Your task to perform on an android device: open a bookmark in the chrome app Image 0: 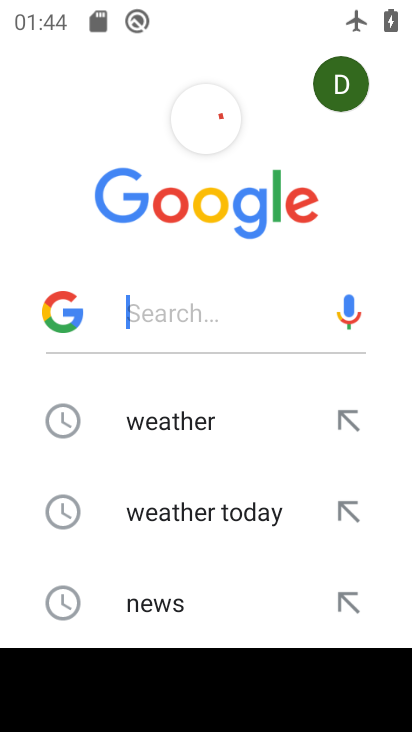
Step 0: press home button
Your task to perform on an android device: open a bookmark in the chrome app Image 1: 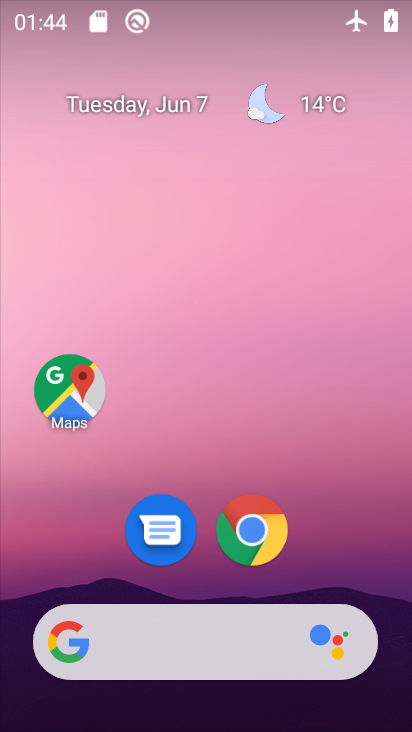
Step 1: click (276, 511)
Your task to perform on an android device: open a bookmark in the chrome app Image 2: 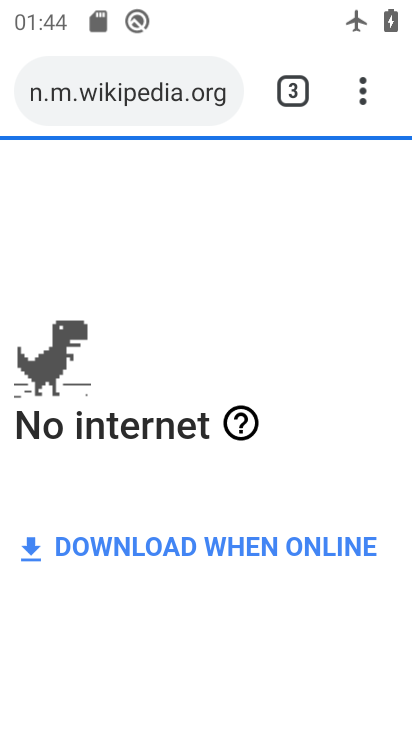
Step 2: click (362, 89)
Your task to perform on an android device: open a bookmark in the chrome app Image 3: 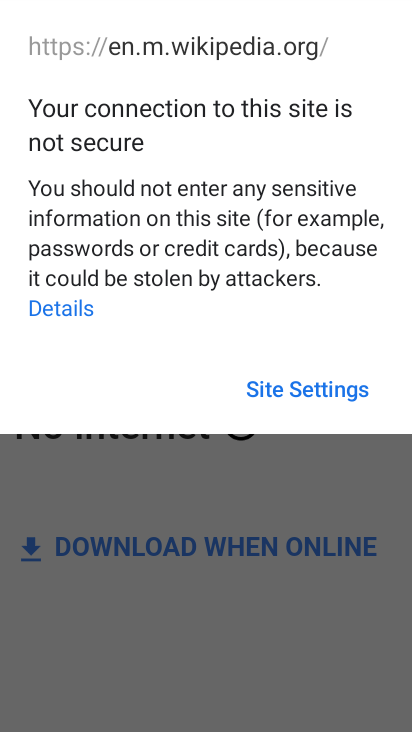
Step 3: press back button
Your task to perform on an android device: open a bookmark in the chrome app Image 4: 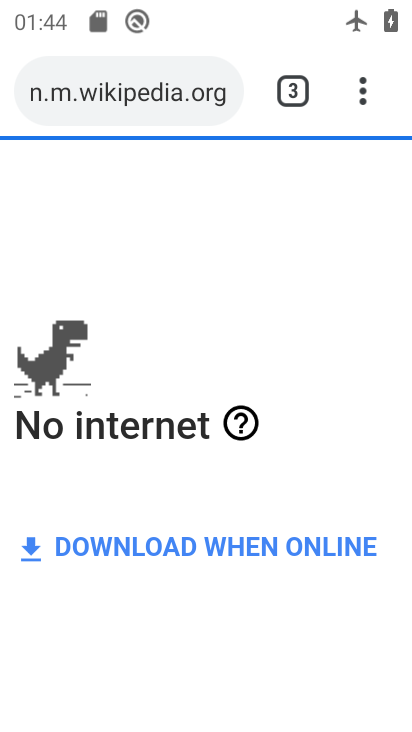
Step 4: click (358, 74)
Your task to perform on an android device: open a bookmark in the chrome app Image 5: 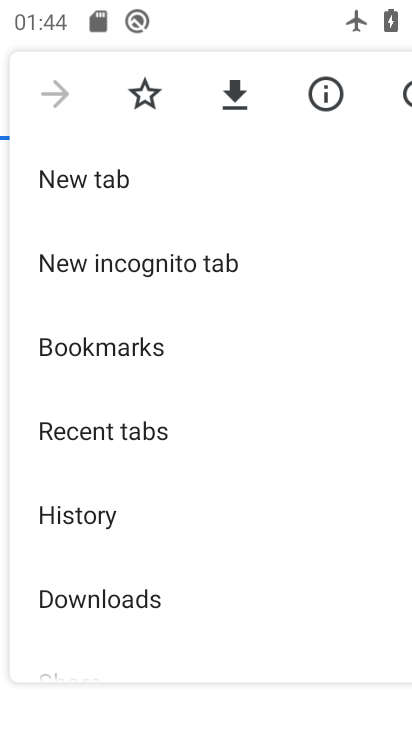
Step 5: drag from (138, 531) to (140, 411)
Your task to perform on an android device: open a bookmark in the chrome app Image 6: 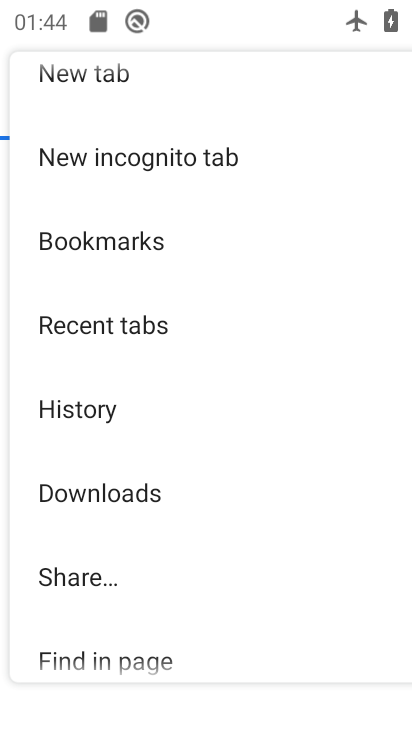
Step 6: click (151, 252)
Your task to perform on an android device: open a bookmark in the chrome app Image 7: 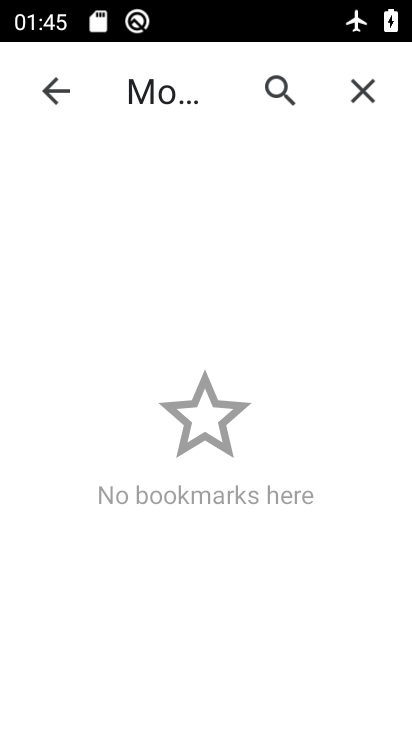
Step 7: task complete